Your task to perform on an android device: Open Google Chrome Image 0: 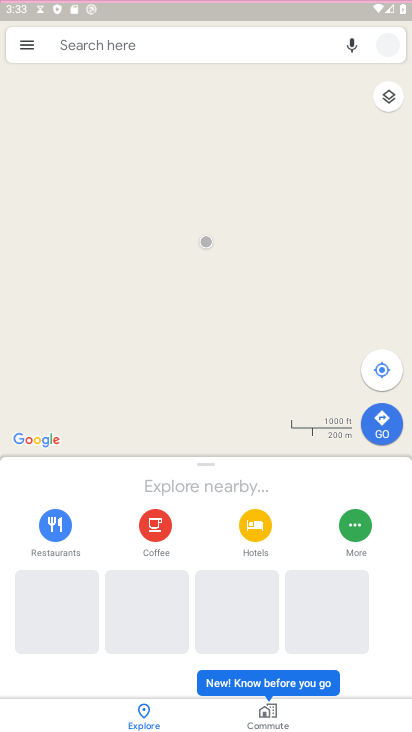
Step 0: click (192, 165)
Your task to perform on an android device: Open Google Chrome Image 1: 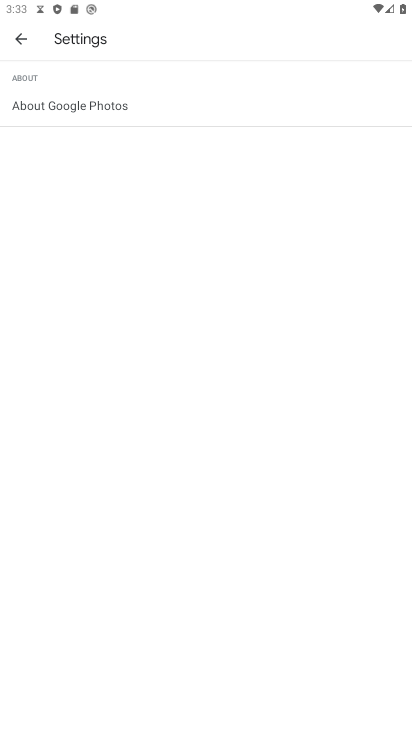
Step 1: press home button
Your task to perform on an android device: Open Google Chrome Image 2: 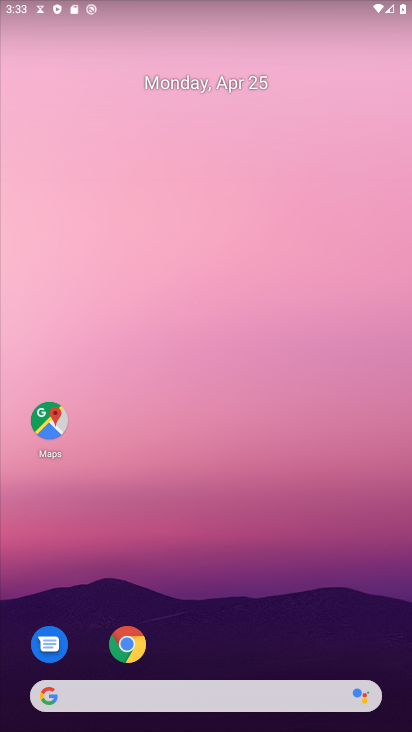
Step 2: drag from (208, 636) to (220, 179)
Your task to perform on an android device: Open Google Chrome Image 3: 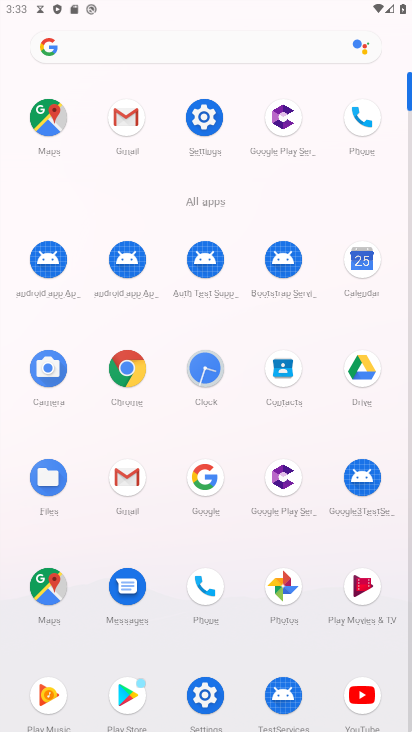
Step 3: click (128, 368)
Your task to perform on an android device: Open Google Chrome Image 4: 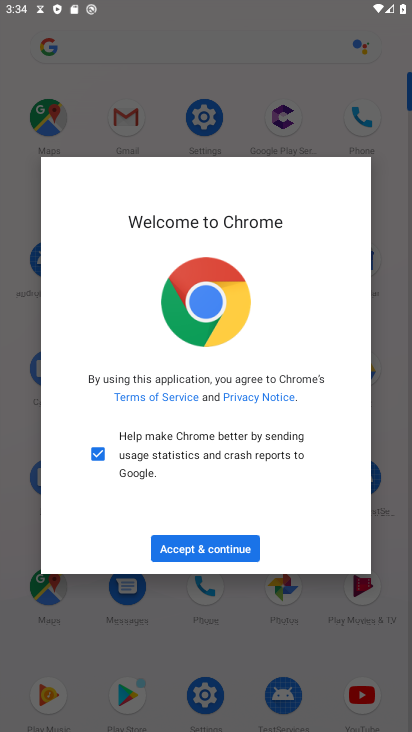
Step 4: click (215, 552)
Your task to perform on an android device: Open Google Chrome Image 5: 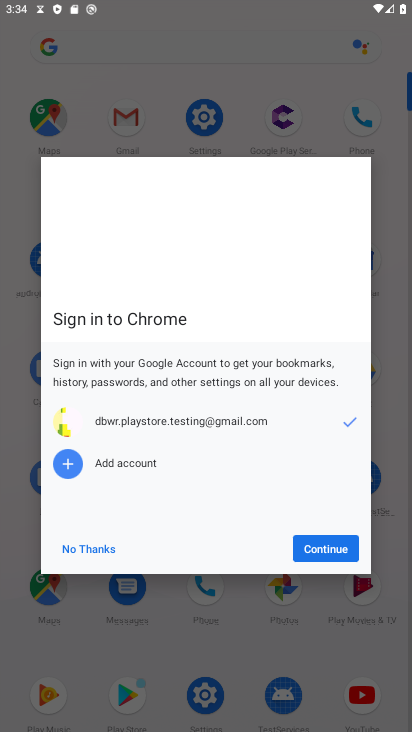
Step 5: click (333, 544)
Your task to perform on an android device: Open Google Chrome Image 6: 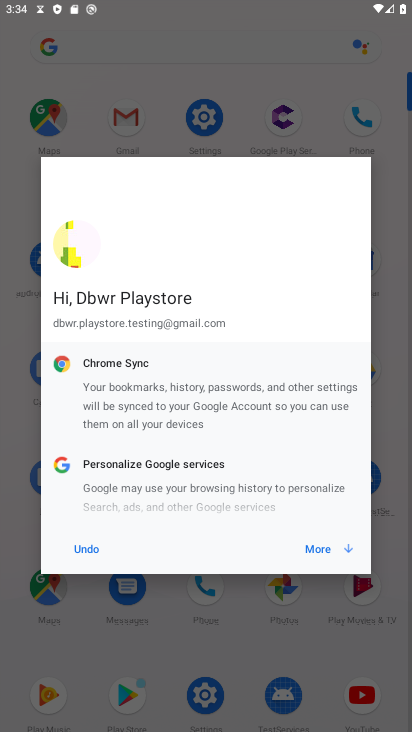
Step 6: click (322, 556)
Your task to perform on an android device: Open Google Chrome Image 7: 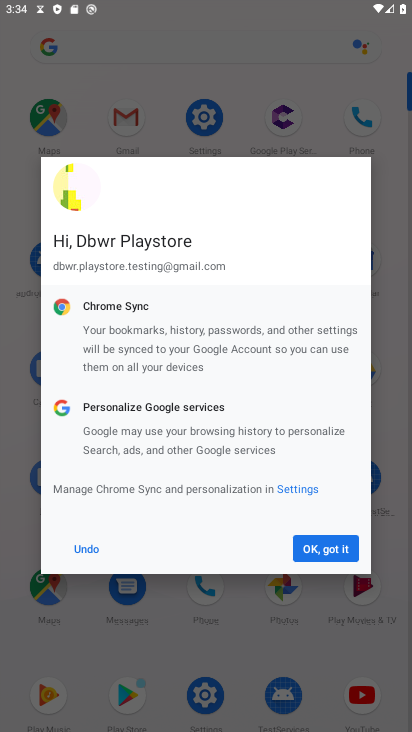
Step 7: click (327, 548)
Your task to perform on an android device: Open Google Chrome Image 8: 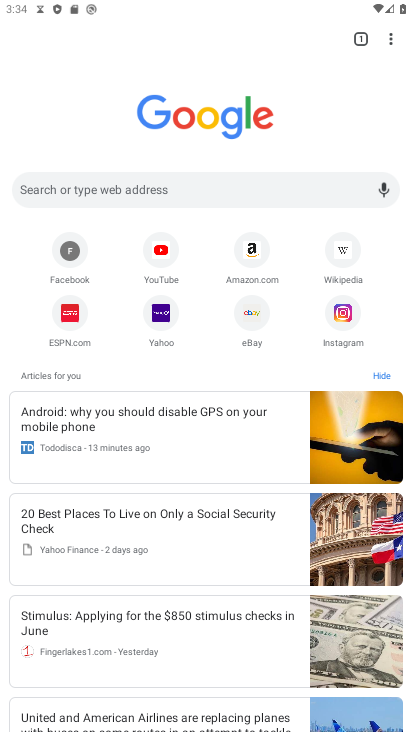
Step 8: task complete